Your task to perform on an android device: toggle wifi Image 0: 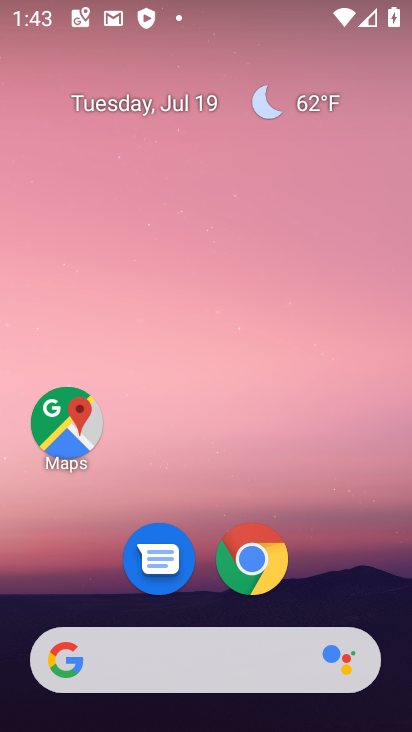
Step 0: drag from (223, 621) to (285, 106)
Your task to perform on an android device: toggle wifi Image 1: 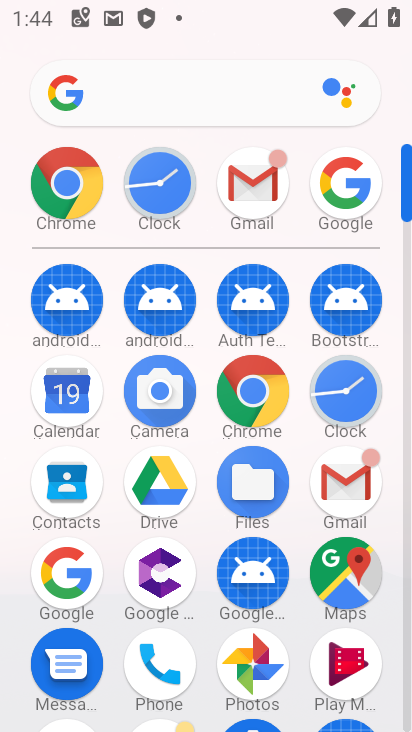
Step 1: drag from (207, 440) to (204, 106)
Your task to perform on an android device: toggle wifi Image 2: 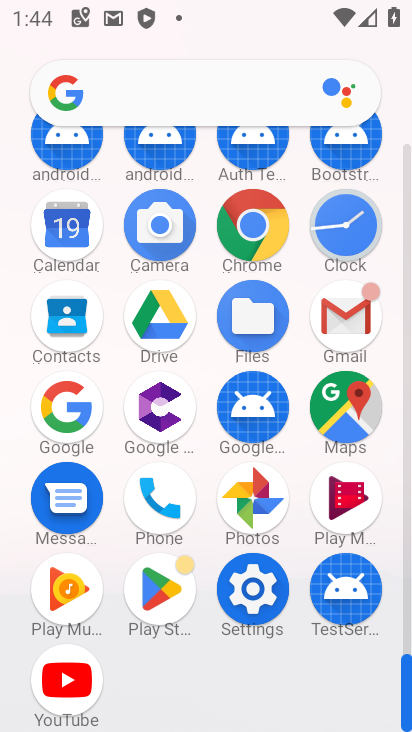
Step 2: click (257, 597)
Your task to perform on an android device: toggle wifi Image 3: 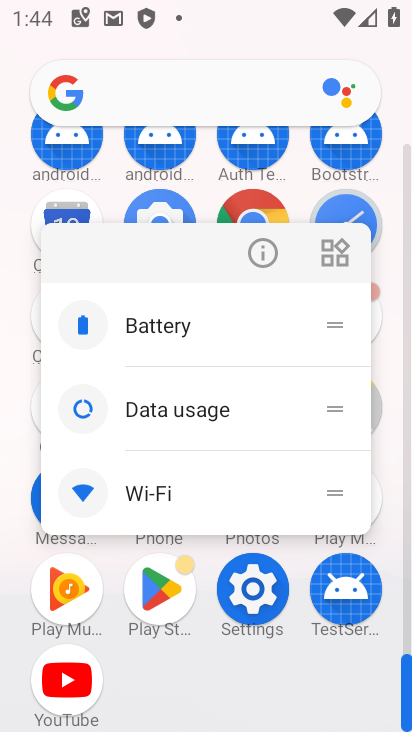
Step 3: click (240, 587)
Your task to perform on an android device: toggle wifi Image 4: 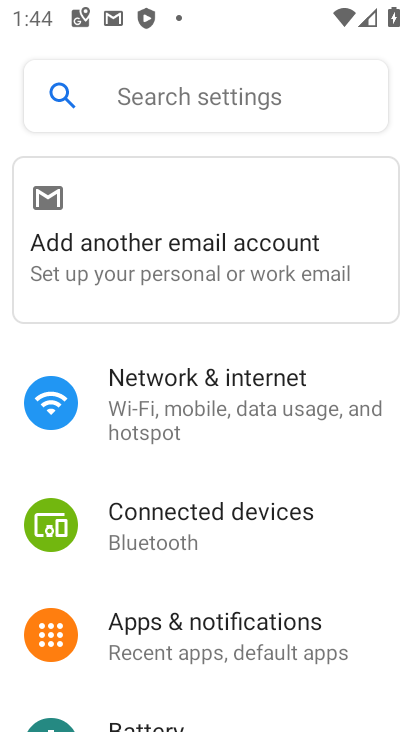
Step 4: click (223, 381)
Your task to perform on an android device: toggle wifi Image 5: 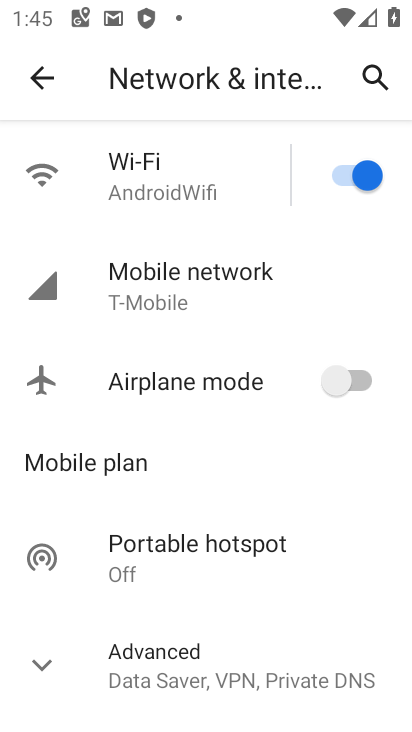
Step 5: click (345, 184)
Your task to perform on an android device: toggle wifi Image 6: 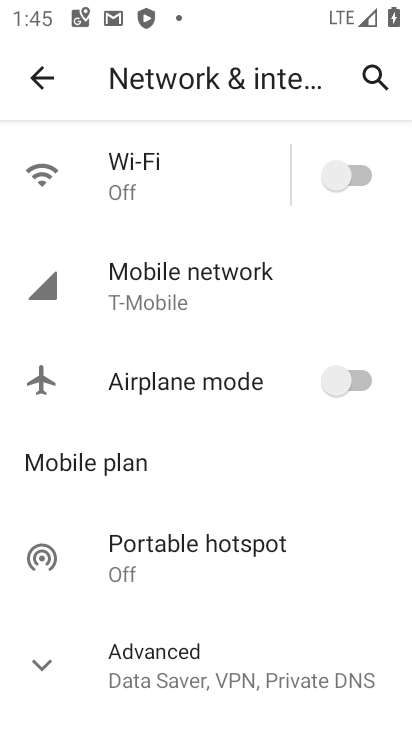
Step 6: task complete